Your task to perform on an android device: Open Chrome and go to settings Image 0: 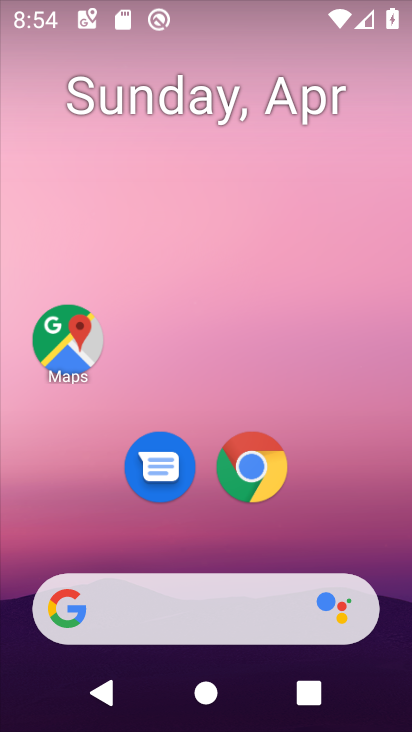
Step 0: click (261, 475)
Your task to perform on an android device: Open Chrome and go to settings Image 1: 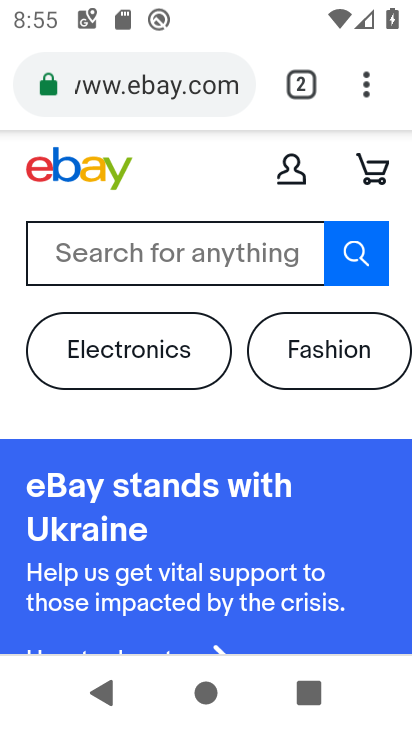
Step 1: click (355, 85)
Your task to perform on an android device: Open Chrome and go to settings Image 2: 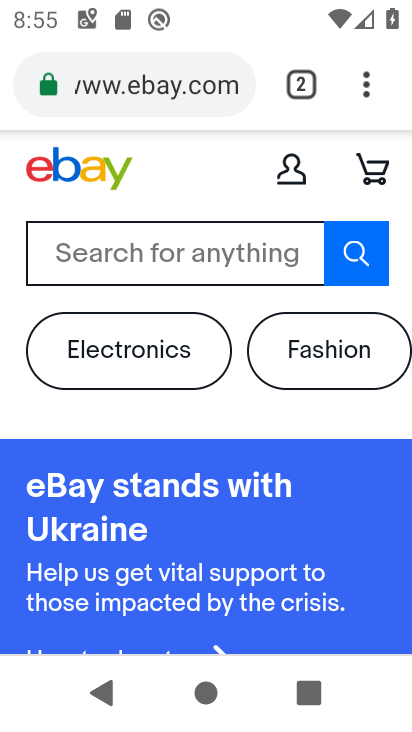
Step 2: click (355, 85)
Your task to perform on an android device: Open Chrome and go to settings Image 3: 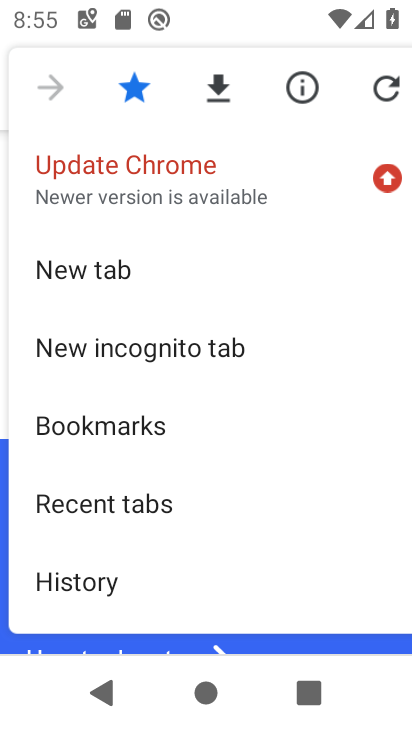
Step 3: drag from (195, 547) to (254, 369)
Your task to perform on an android device: Open Chrome and go to settings Image 4: 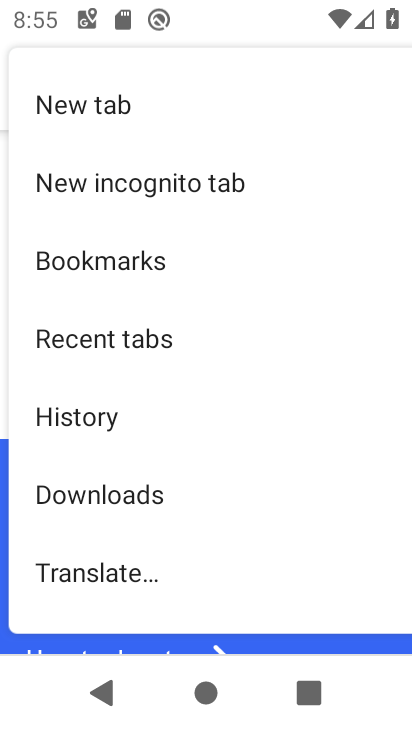
Step 4: click (209, 432)
Your task to perform on an android device: Open Chrome and go to settings Image 5: 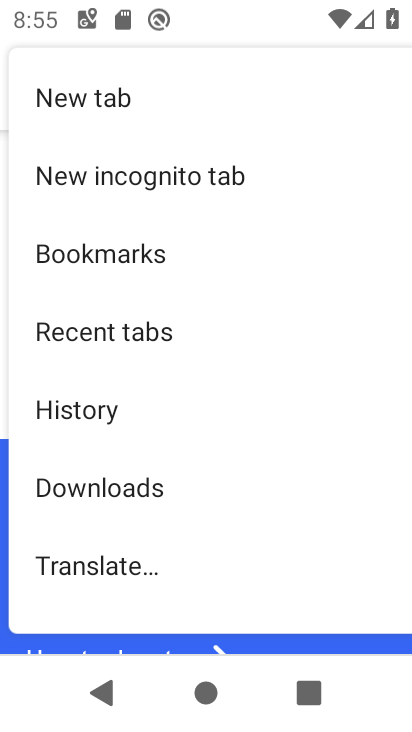
Step 5: drag from (166, 497) to (188, 396)
Your task to perform on an android device: Open Chrome and go to settings Image 6: 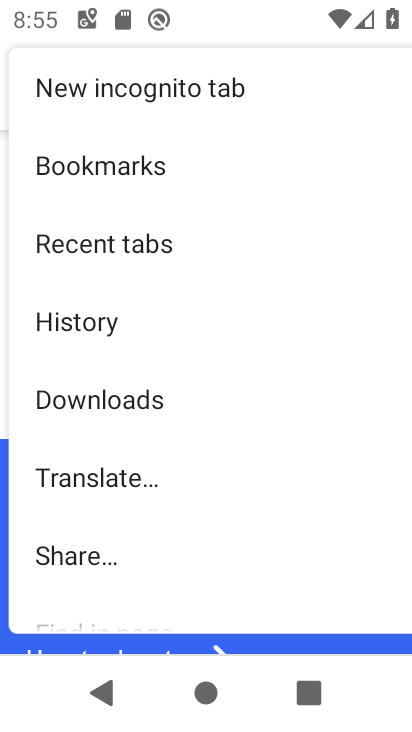
Step 6: drag from (139, 520) to (186, 404)
Your task to perform on an android device: Open Chrome and go to settings Image 7: 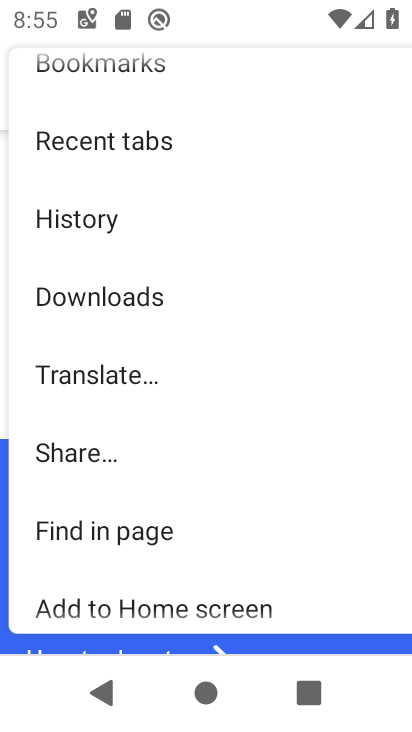
Step 7: click (196, 375)
Your task to perform on an android device: Open Chrome and go to settings Image 8: 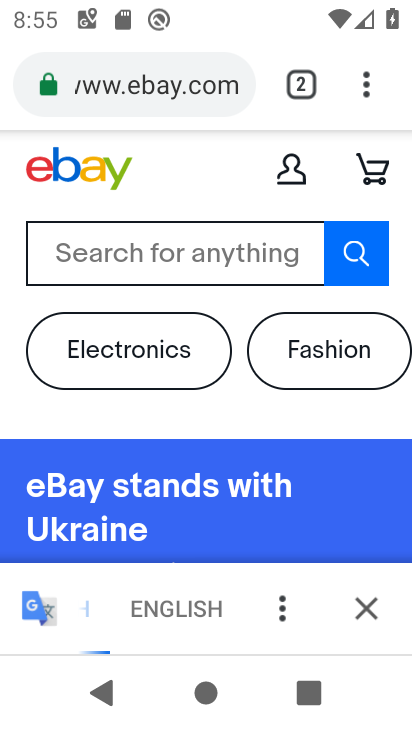
Step 8: click (366, 92)
Your task to perform on an android device: Open Chrome and go to settings Image 9: 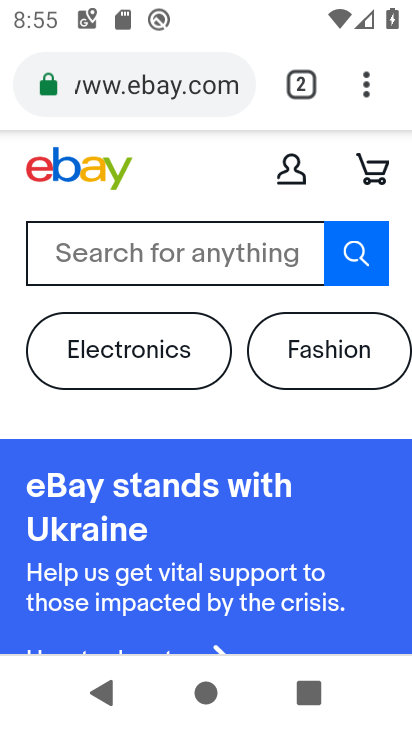
Step 9: click (366, 92)
Your task to perform on an android device: Open Chrome and go to settings Image 10: 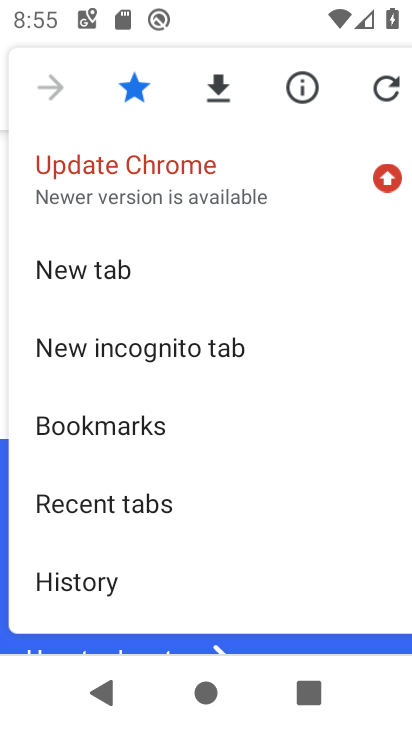
Step 10: drag from (131, 542) to (167, 406)
Your task to perform on an android device: Open Chrome and go to settings Image 11: 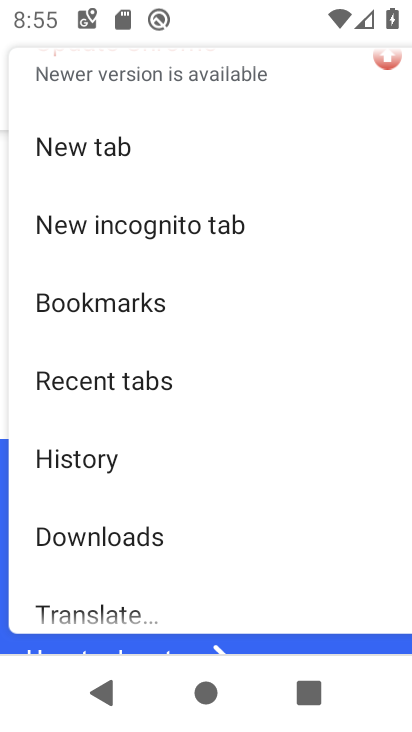
Step 11: drag from (161, 492) to (183, 395)
Your task to perform on an android device: Open Chrome and go to settings Image 12: 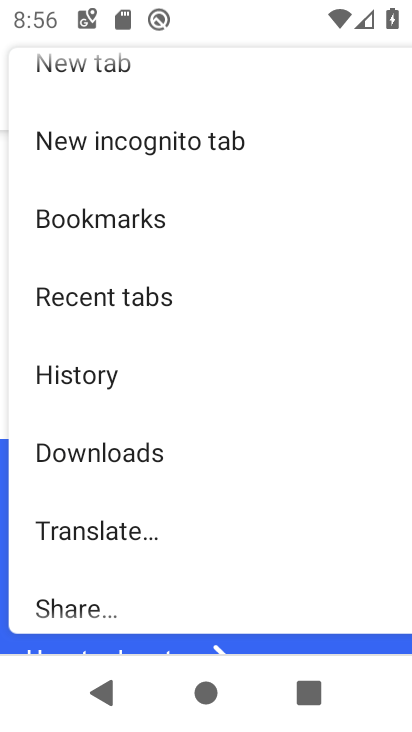
Step 12: drag from (158, 462) to (206, 315)
Your task to perform on an android device: Open Chrome and go to settings Image 13: 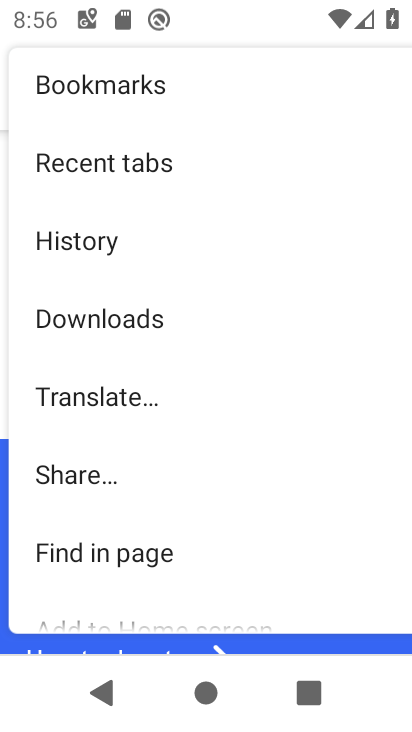
Step 13: drag from (169, 497) to (209, 396)
Your task to perform on an android device: Open Chrome and go to settings Image 14: 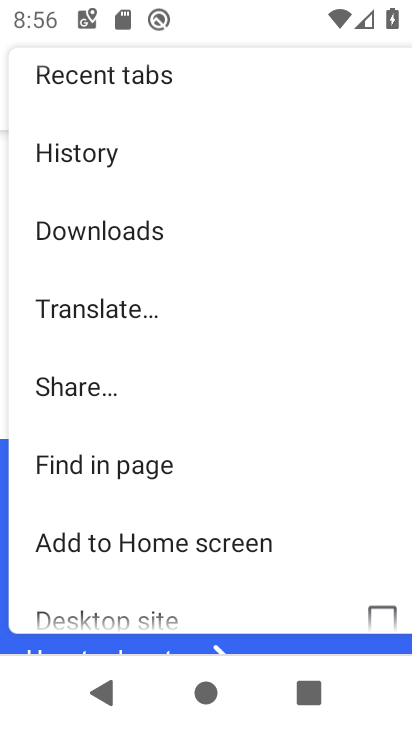
Step 14: drag from (183, 486) to (237, 333)
Your task to perform on an android device: Open Chrome and go to settings Image 15: 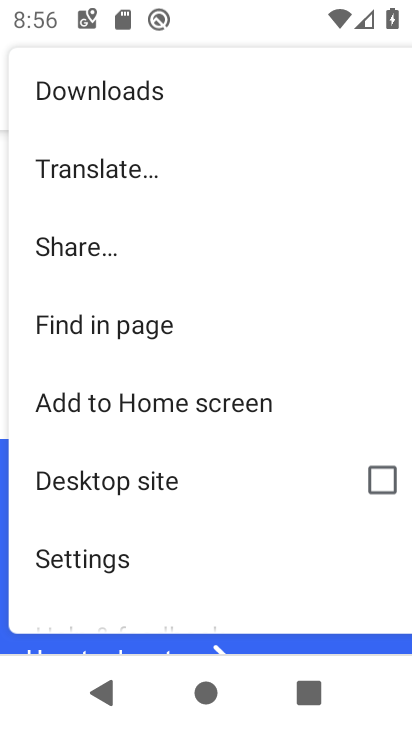
Step 15: click (156, 568)
Your task to perform on an android device: Open Chrome and go to settings Image 16: 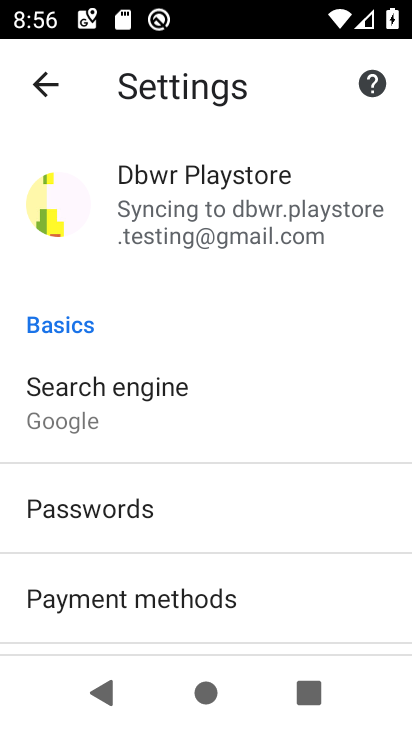
Step 16: task complete